Your task to perform on an android device: Open Google Image 0: 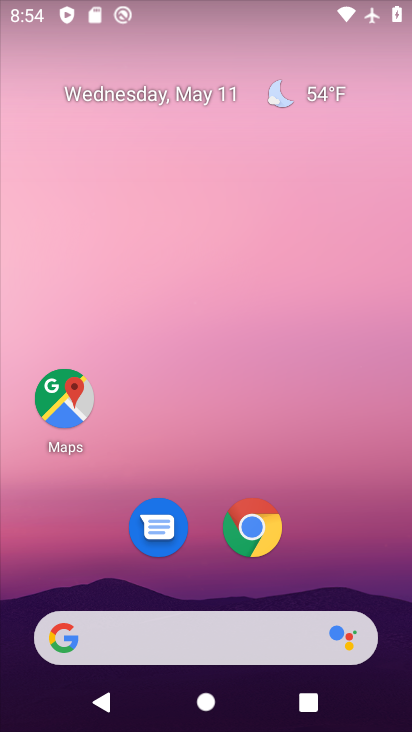
Step 0: drag from (368, 509) to (290, 12)
Your task to perform on an android device: Open Google Image 1: 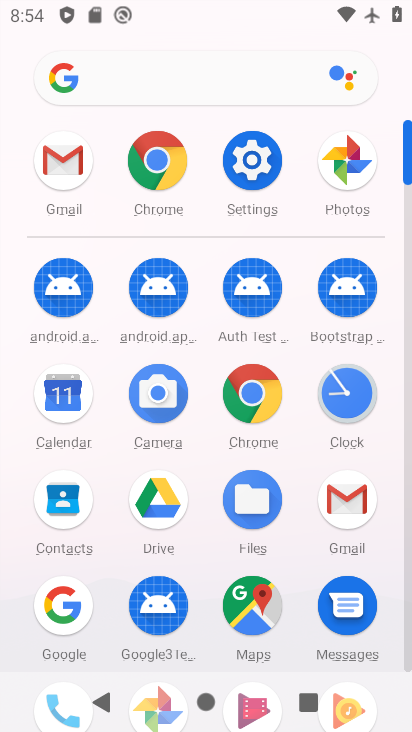
Step 1: click (70, 618)
Your task to perform on an android device: Open Google Image 2: 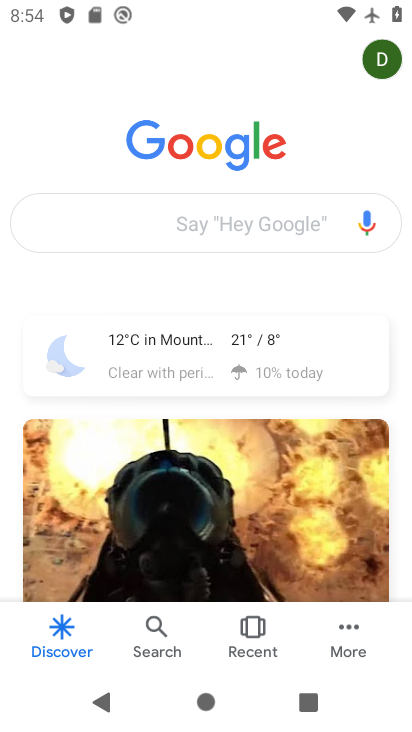
Step 2: task complete